Your task to perform on an android device: Go to Wikipedia Image 0: 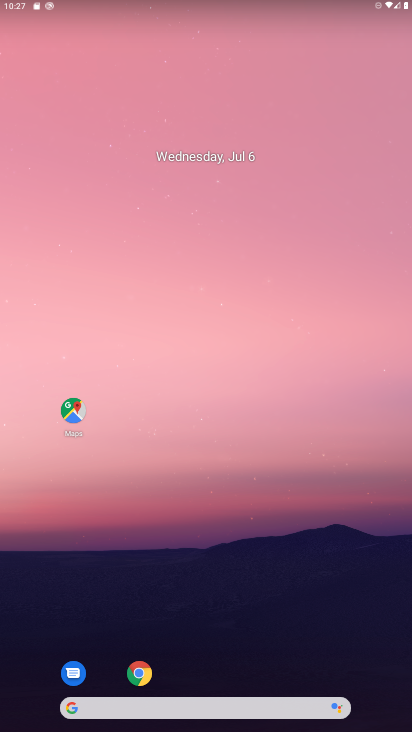
Step 0: click (147, 674)
Your task to perform on an android device: Go to Wikipedia Image 1: 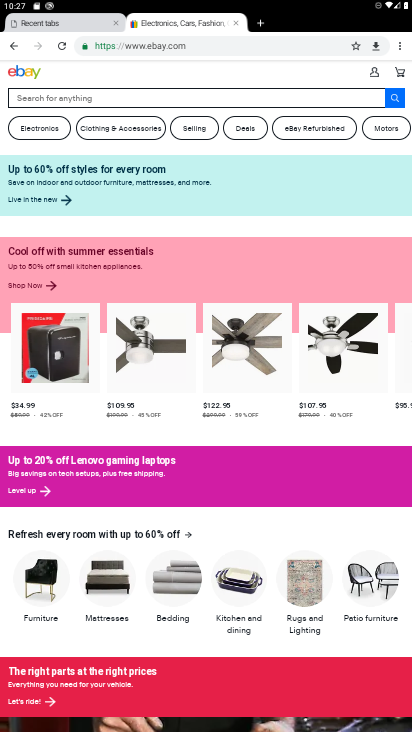
Step 1: click (402, 45)
Your task to perform on an android device: Go to Wikipedia Image 2: 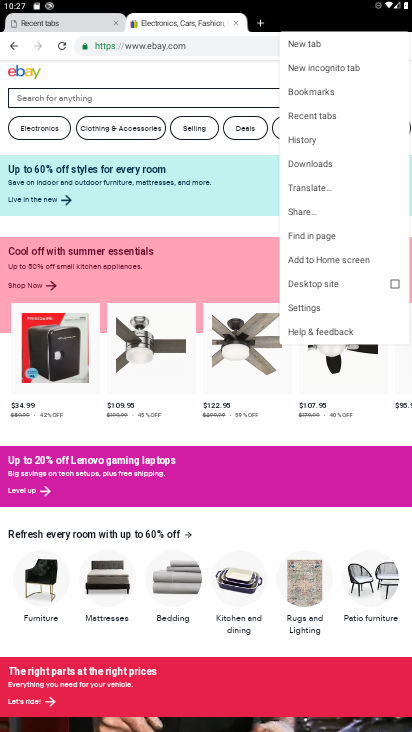
Step 2: click (361, 44)
Your task to perform on an android device: Go to Wikipedia Image 3: 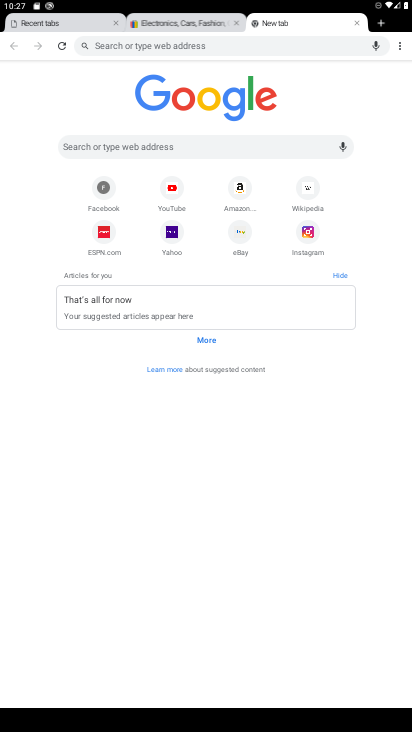
Step 3: click (309, 193)
Your task to perform on an android device: Go to Wikipedia Image 4: 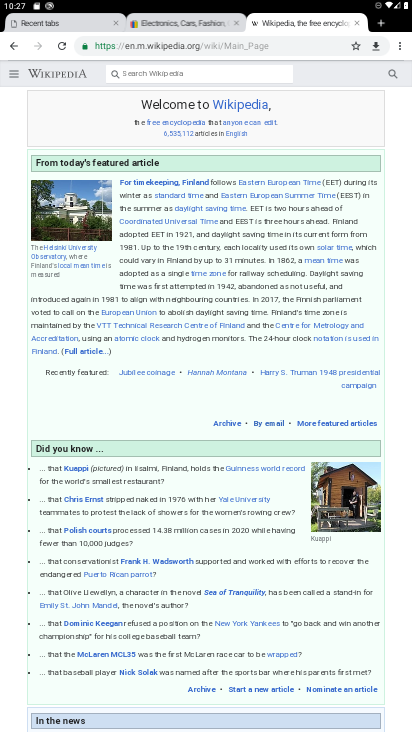
Step 4: task complete